Your task to perform on an android device: add a contact in the contacts app Image 0: 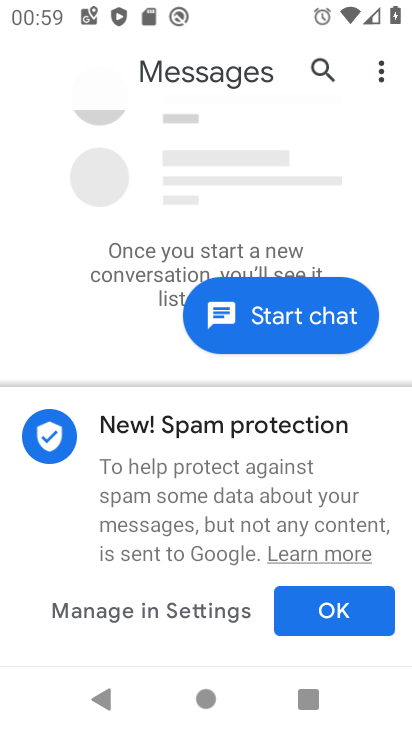
Step 0: press home button
Your task to perform on an android device: add a contact in the contacts app Image 1: 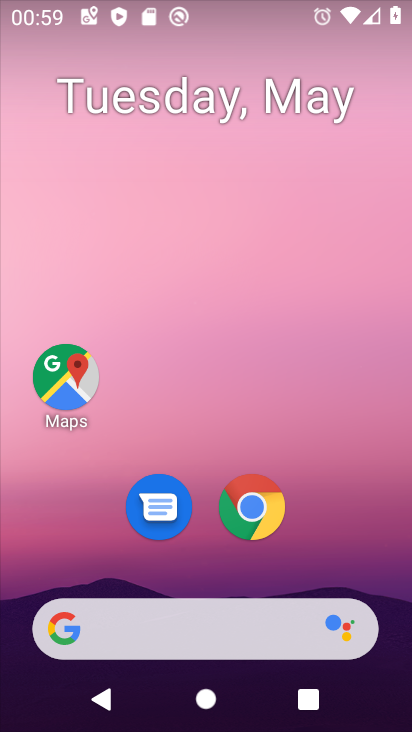
Step 1: drag from (252, 552) to (263, 217)
Your task to perform on an android device: add a contact in the contacts app Image 2: 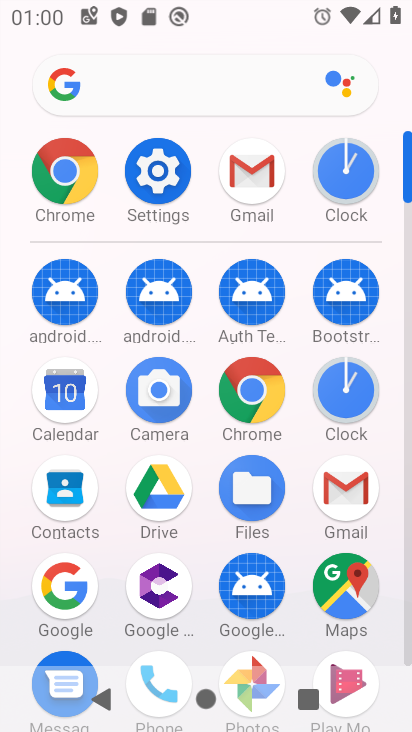
Step 2: click (65, 507)
Your task to perform on an android device: add a contact in the contacts app Image 3: 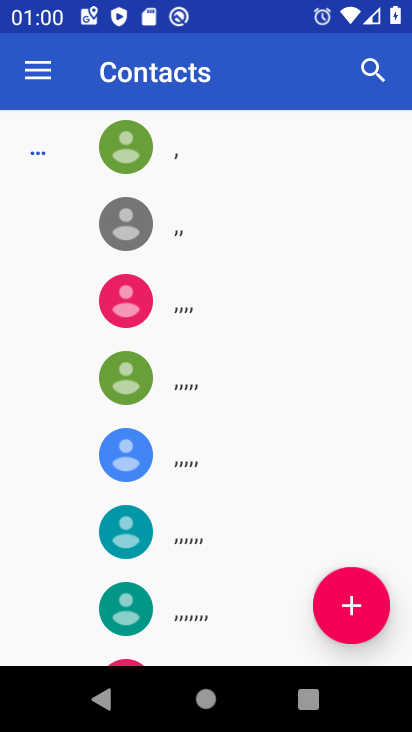
Step 3: click (356, 599)
Your task to perform on an android device: add a contact in the contacts app Image 4: 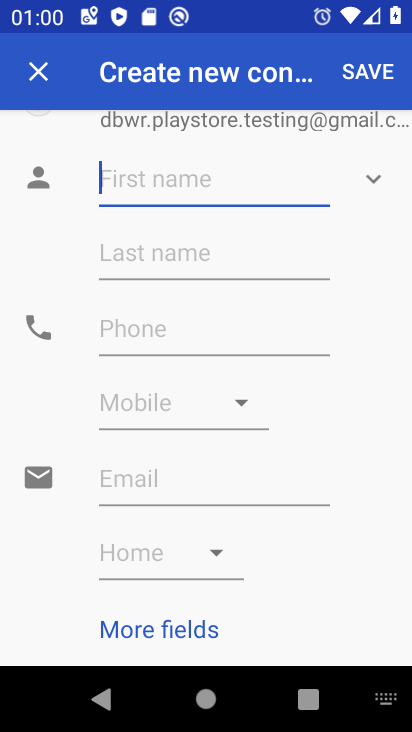
Step 4: click (158, 173)
Your task to perform on an android device: add a contact in the contacts app Image 5: 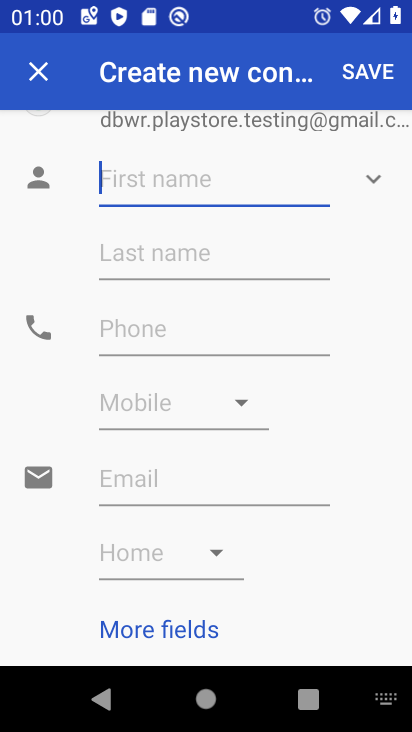
Step 5: type "bbb"
Your task to perform on an android device: add a contact in the contacts app Image 6: 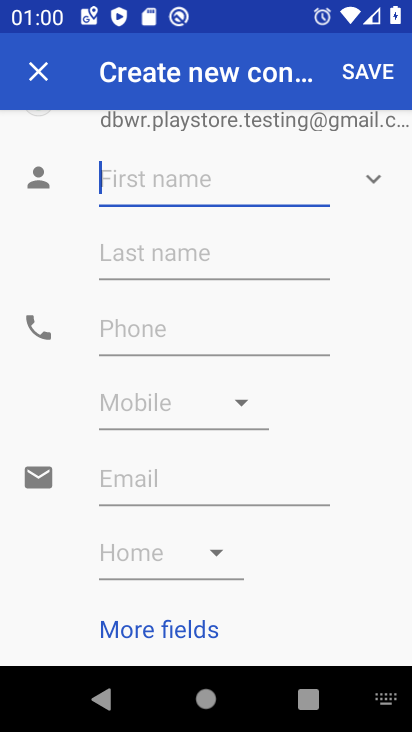
Step 6: click (110, 256)
Your task to perform on an android device: add a contact in the contacts app Image 7: 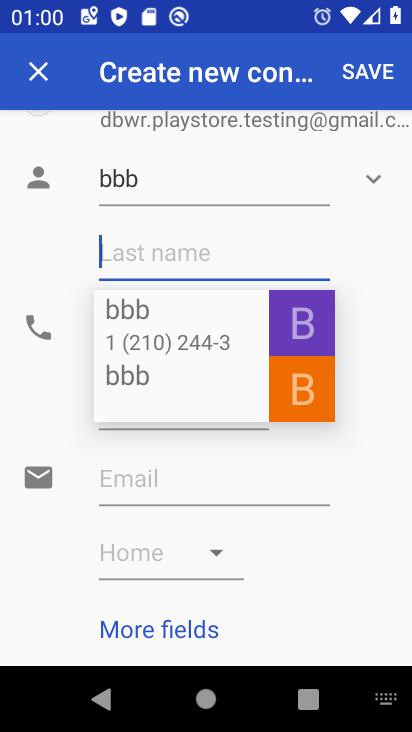
Step 7: type "ccc"
Your task to perform on an android device: add a contact in the contacts app Image 8: 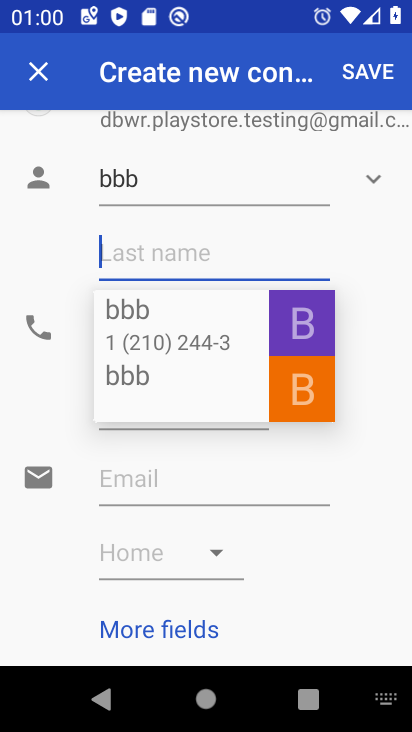
Step 8: click (163, 465)
Your task to perform on an android device: add a contact in the contacts app Image 9: 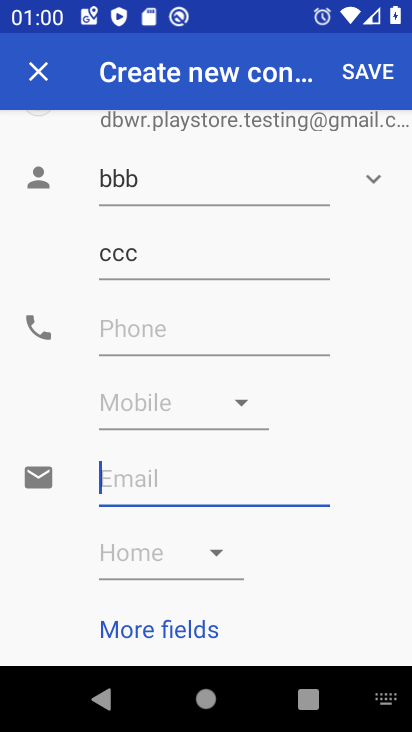
Step 9: click (47, 398)
Your task to perform on an android device: add a contact in the contacts app Image 10: 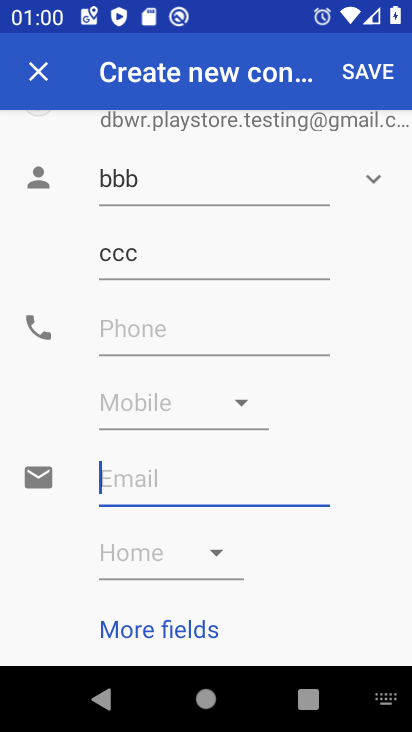
Step 10: click (111, 338)
Your task to perform on an android device: add a contact in the contacts app Image 11: 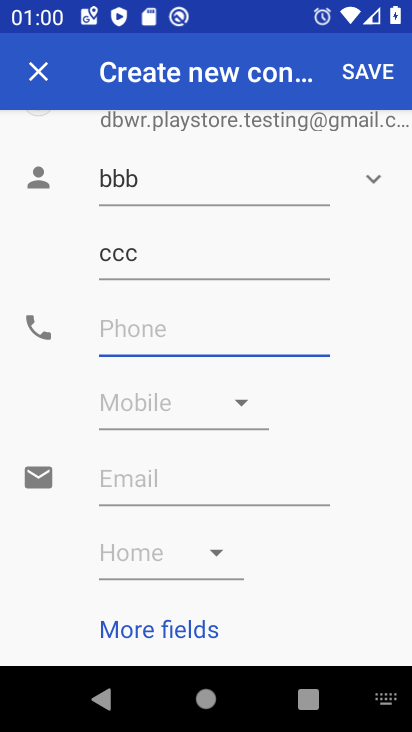
Step 11: click (227, 330)
Your task to perform on an android device: add a contact in the contacts app Image 12: 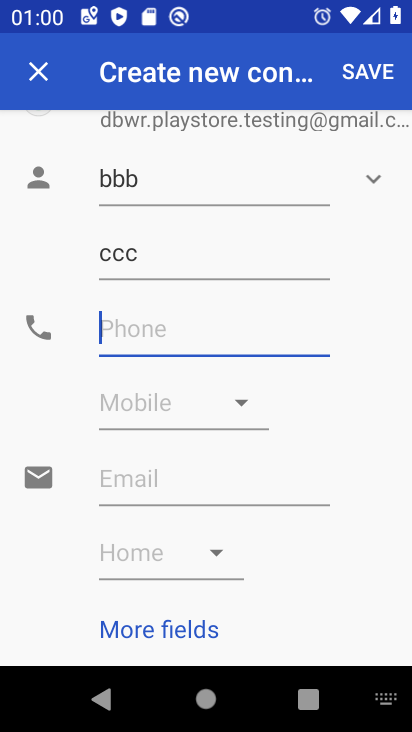
Step 12: type "6567878909"
Your task to perform on an android device: add a contact in the contacts app Image 13: 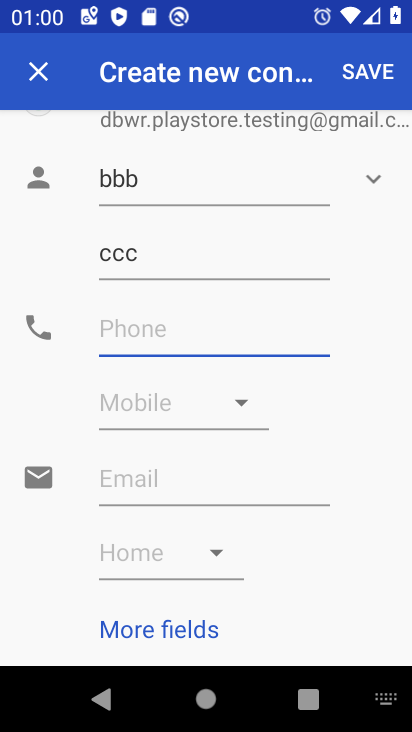
Step 13: click (236, 406)
Your task to perform on an android device: add a contact in the contacts app Image 14: 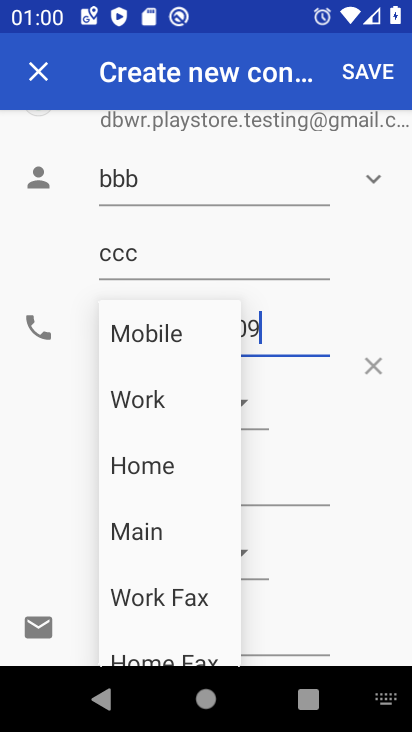
Step 14: click (130, 338)
Your task to perform on an android device: add a contact in the contacts app Image 15: 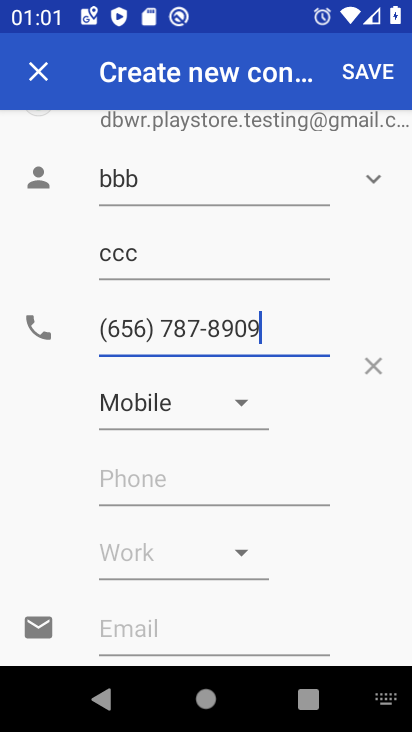
Step 15: click (377, 77)
Your task to perform on an android device: add a contact in the contacts app Image 16: 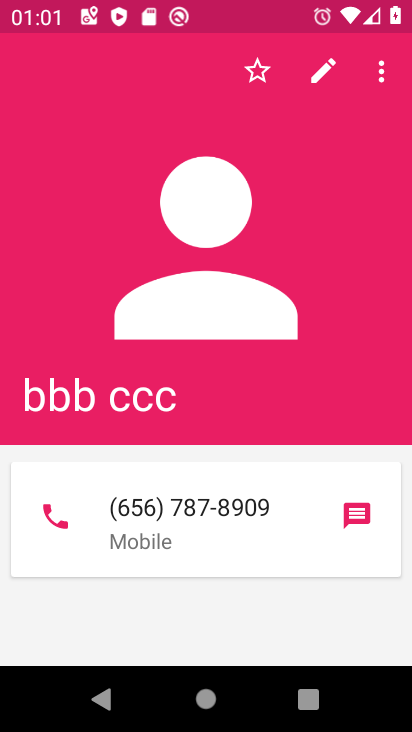
Step 16: task complete